Your task to perform on an android device: toggle improve location accuracy Image 0: 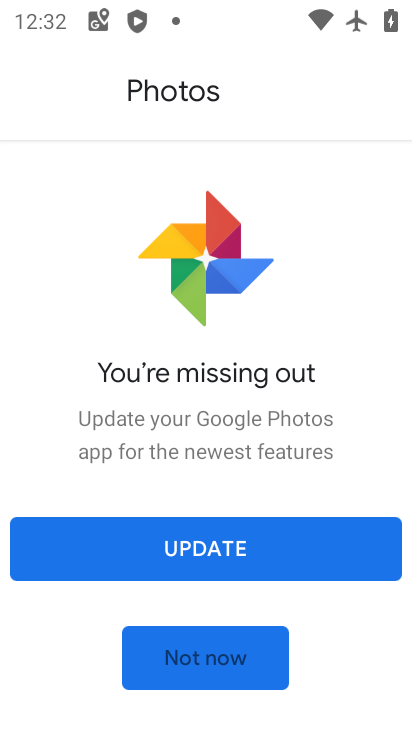
Step 0: press home button
Your task to perform on an android device: toggle improve location accuracy Image 1: 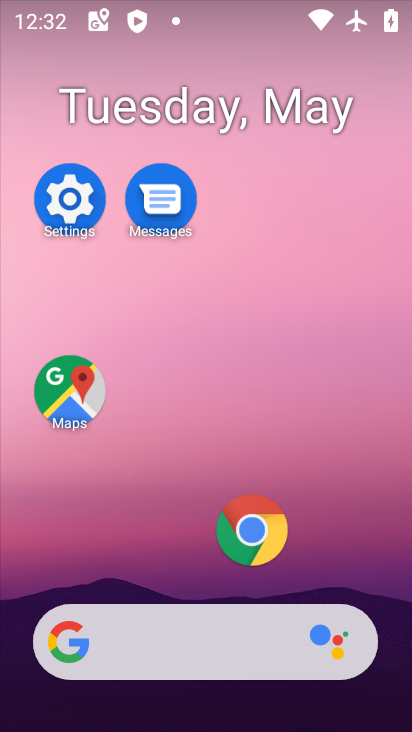
Step 1: click (227, 259)
Your task to perform on an android device: toggle improve location accuracy Image 2: 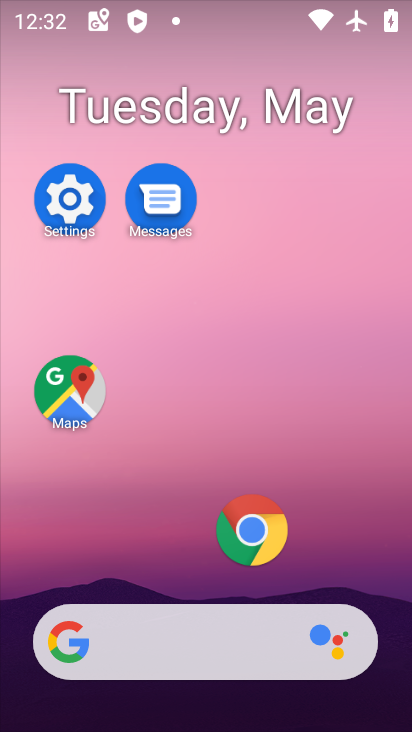
Step 2: click (295, 204)
Your task to perform on an android device: toggle improve location accuracy Image 3: 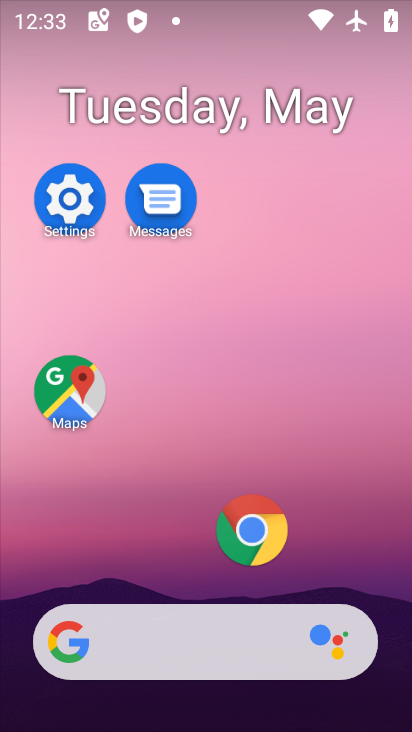
Step 3: drag from (194, 492) to (256, 113)
Your task to perform on an android device: toggle improve location accuracy Image 4: 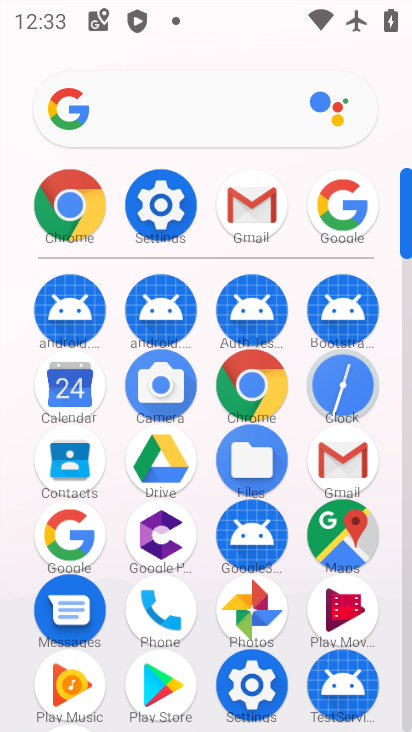
Step 4: click (252, 689)
Your task to perform on an android device: toggle improve location accuracy Image 5: 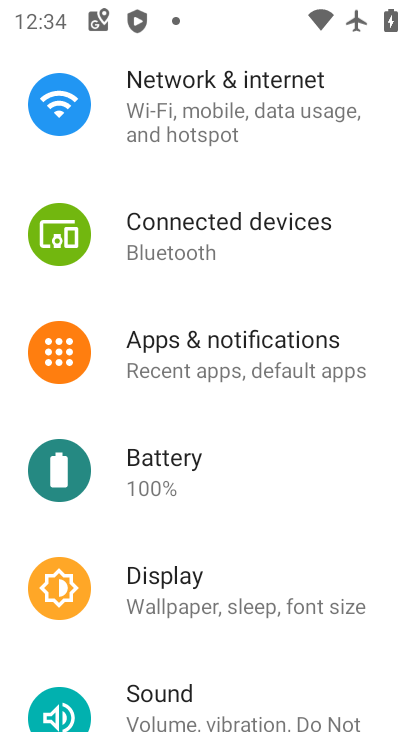
Step 5: drag from (230, 643) to (248, 146)
Your task to perform on an android device: toggle improve location accuracy Image 6: 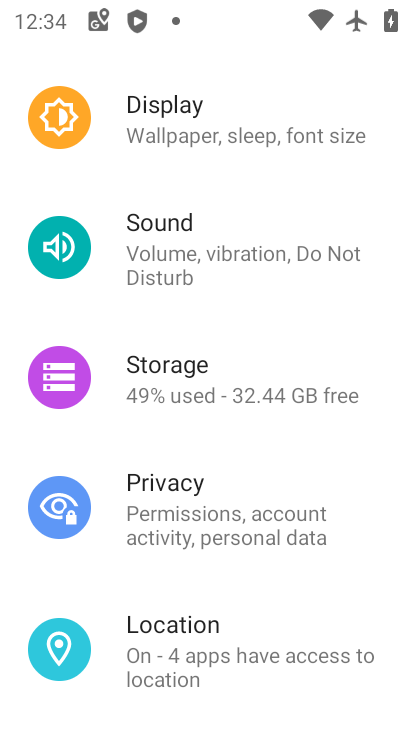
Step 6: click (200, 654)
Your task to perform on an android device: toggle improve location accuracy Image 7: 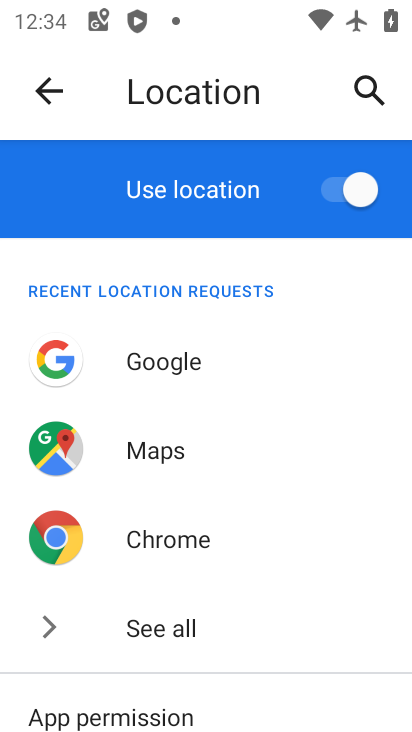
Step 7: drag from (225, 659) to (268, 231)
Your task to perform on an android device: toggle improve location accuracy Image 8: 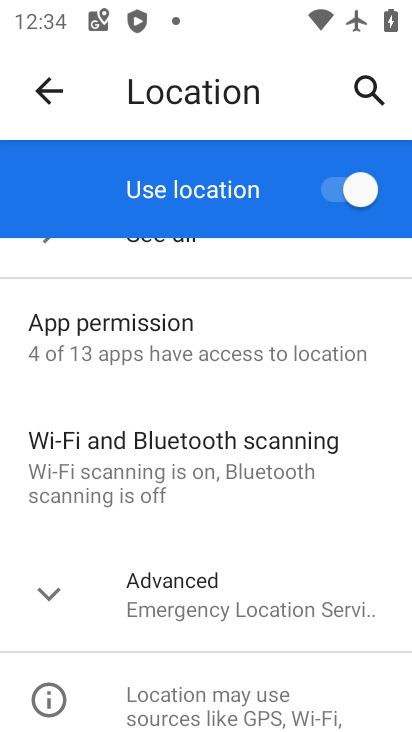
Step 8: click (255, 611)
Your task to perform on an android device: toggle improve location accuracy Image 9: 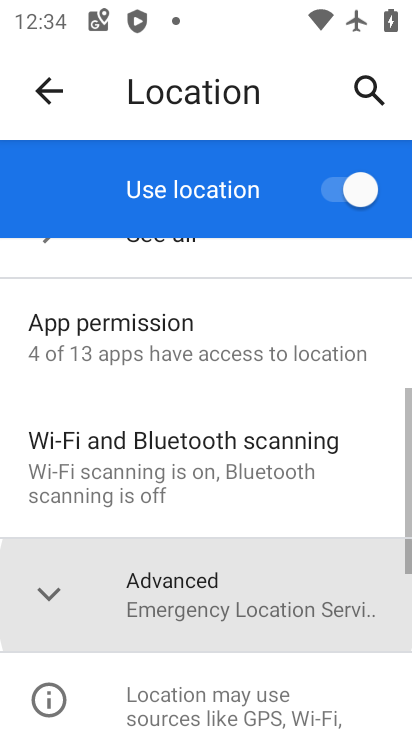
Step 9: drag from (252, 526) to (245, 163)
Your task to perform on an android device: toggle improve location accuracy Image 10: 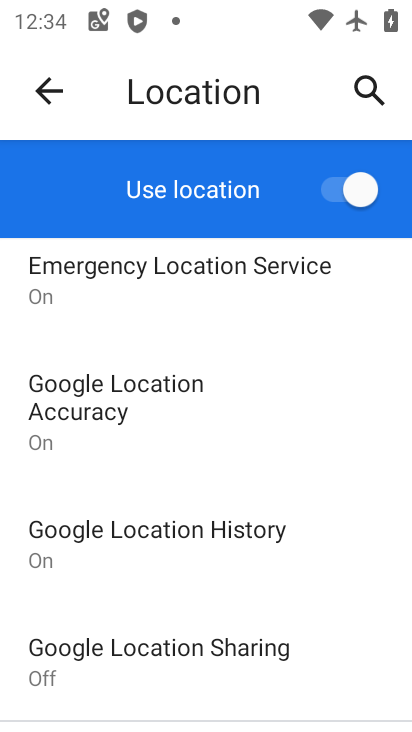
Step 10: click (201, 410)
Your task to perform on an android device: toggle improve location accuracy Image 11: 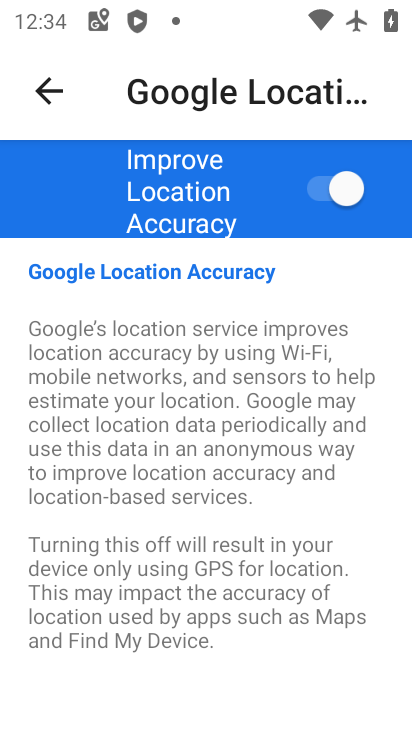
Step 11: click (335, 200)
Your task to perform on an android device: toggle improve location accuracy Image 12: 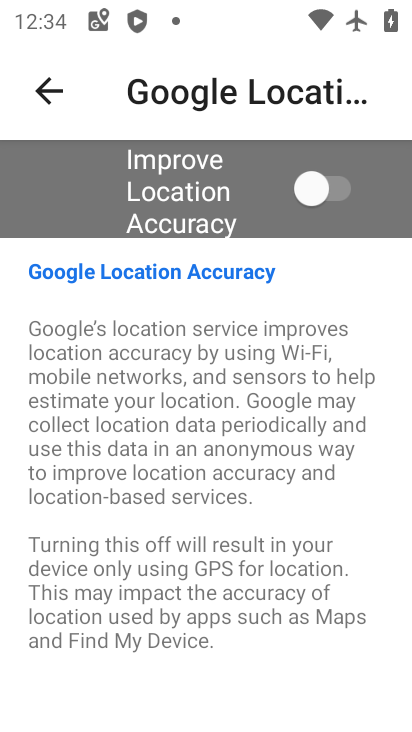
Step 12: task complete